Your task to perform on an android device: Open Google Maps Image 0: 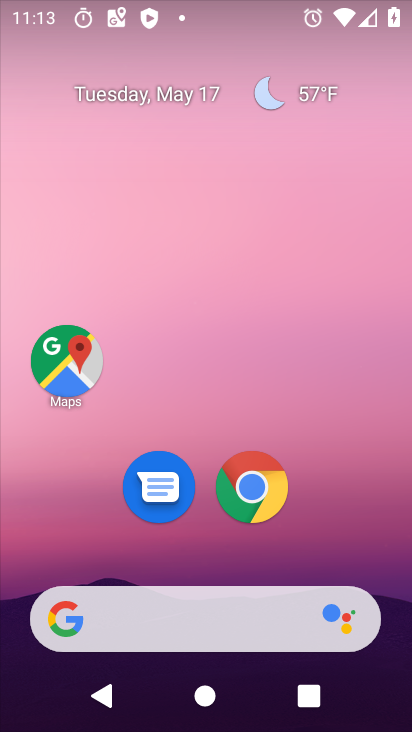
Step 0: drag from (228, 723) to (228, 128)
Your task to perform on an android device: Open Google Maps Image 1: 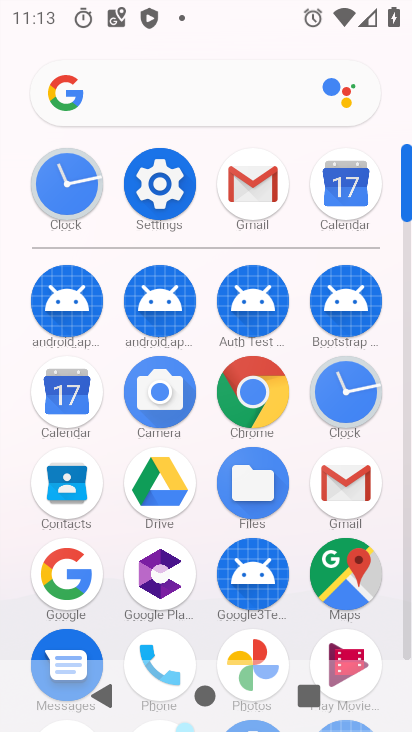
Step 1: click (340, 572)
Your task to perform on an android device: Open Google Maps Image 2: 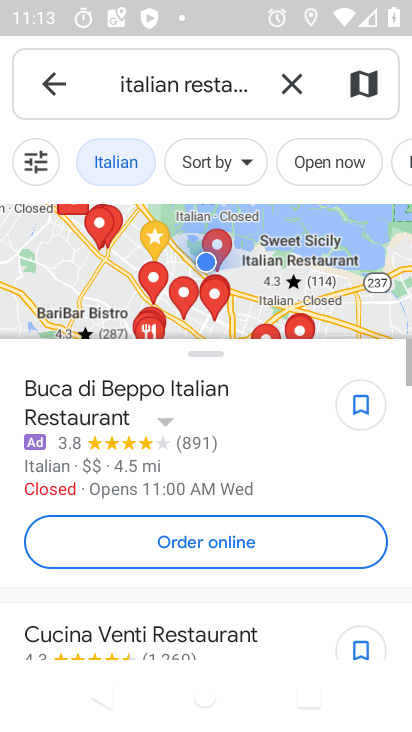
Step 2: click (49, 78)
Your task to perform on an android device: Open Google Maps Image 3: 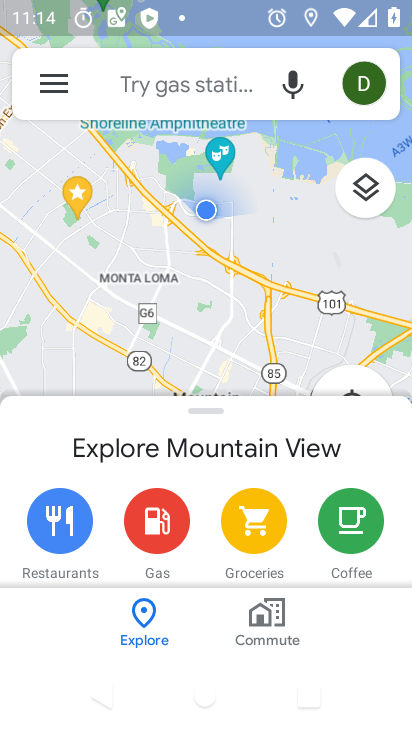
Step 3: task complete